Your task to perform on an android device: toggle notifications settings in the gmail app Image 0: 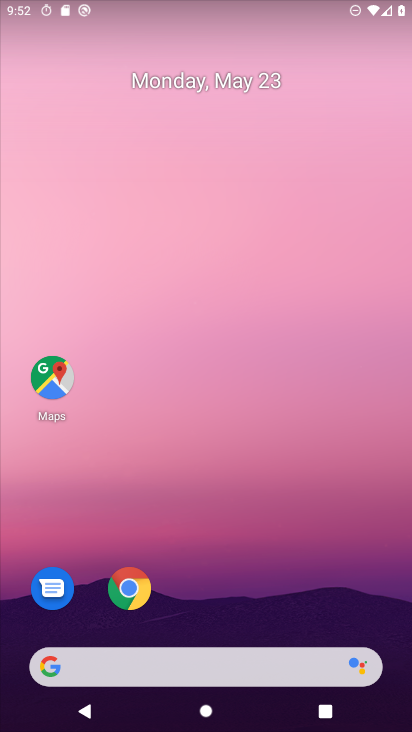
Step 0: drag from (397, 640) to (357, 116)
Your task to perform on an android device: toggle notifications settings in the gmail app Image 1: 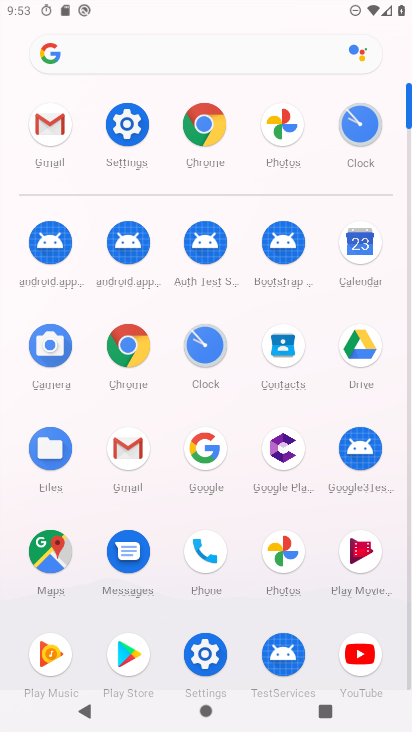
Step 1: click (122, 450)
Your task to perform on an android device: toggle notifications settings in the gmail app Image 2: 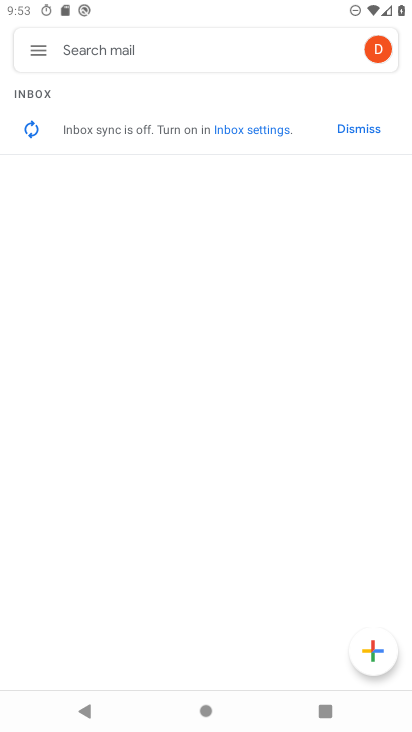
Step 2: click (36, 54)
Your task to perform on an android device: toggle notifications settings in the gmail app Image 3: 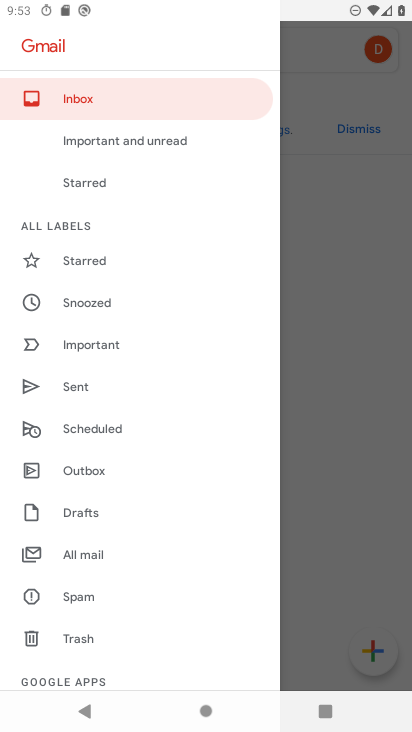
Step 3: drag from (173, 643) to (160, 318)
Your task to perform on an android device: toggle notifications settings in the gmail app Image 4: 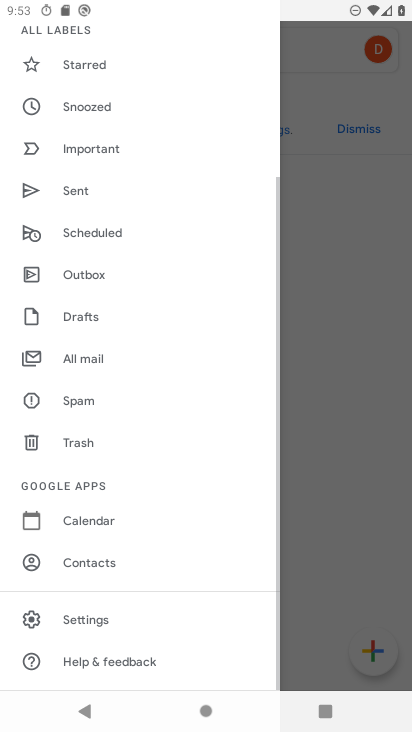
Step 4: click (82, 612)
Your task to perform on an android device: toggle notifications settings in the gmail app Image 5: 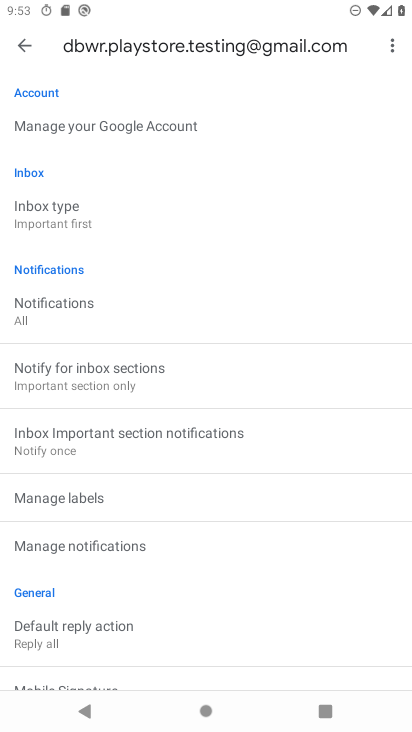
Step 5: click (46, 305)
Your task to perform on an android device: toggle notifications settings in the gmail app Image 6: 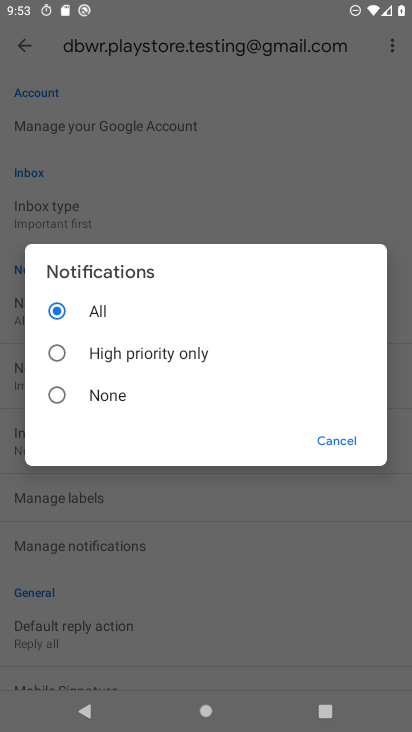
Step 6: click (330, 438)
Your task to perform on an android device: toggle notifications settings in the gmail app Image 7: 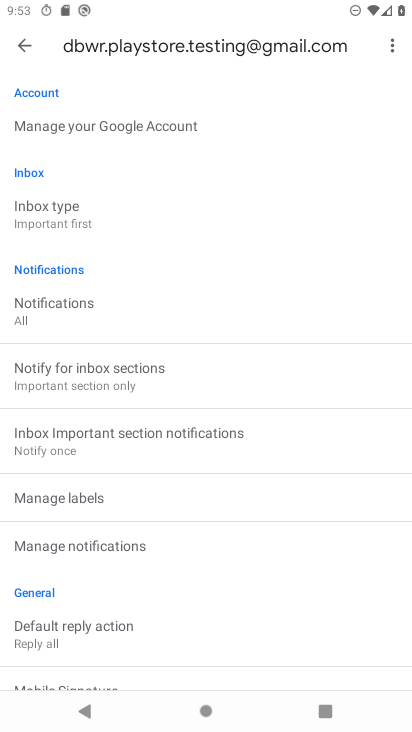
Step 7: click (21, 36)
Your task to perform on an android device: toggle notifications settings in the gmail app Image 8: 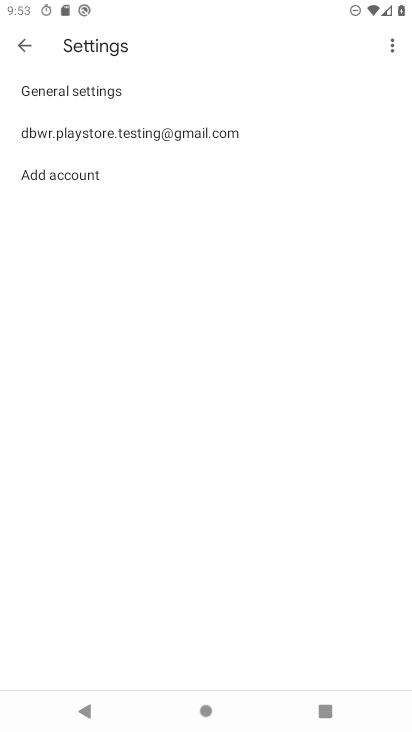
Step 8: click (79, 80)
Your task to perform on an android device: toggle notifications settings in the gmail app Image 9: 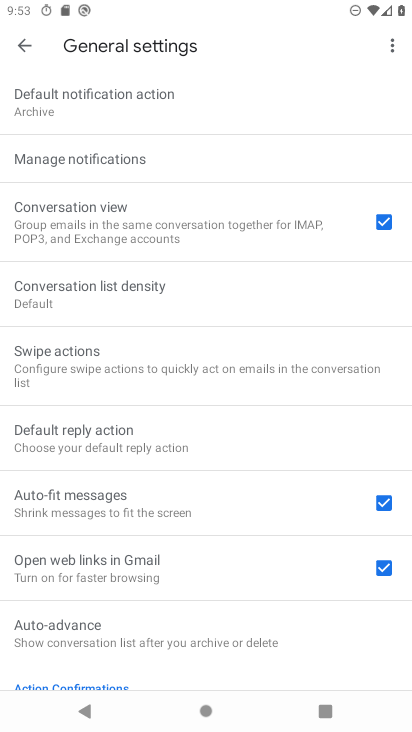
Step 9: click (98, 162)
Your task to perform on an android device: toggle notifications settings in the gmail app Image 10: 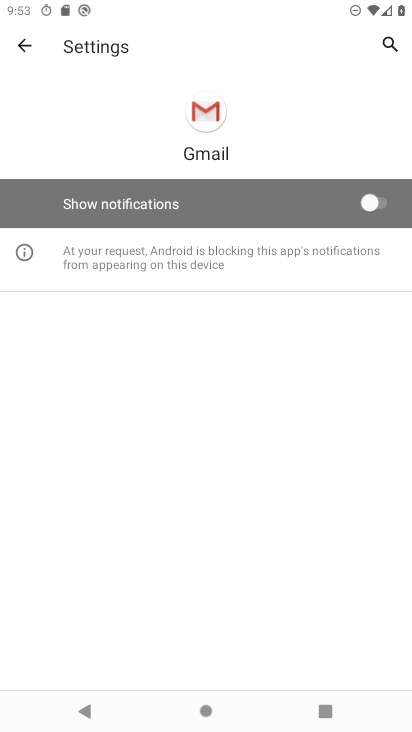
Step 10: click (383, 205)
Your task to perform on an android device: toggle notifications settings in the gmail app Image 11: 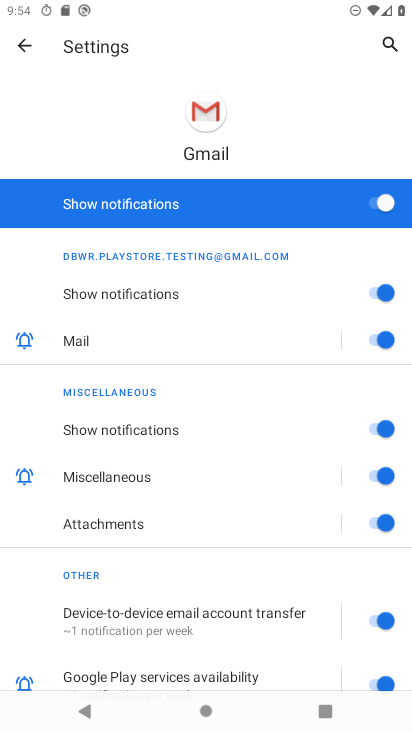
Step 11: task complete